Your task to perform on an android device: allow notifications from all sites in the chrome app Image 0: 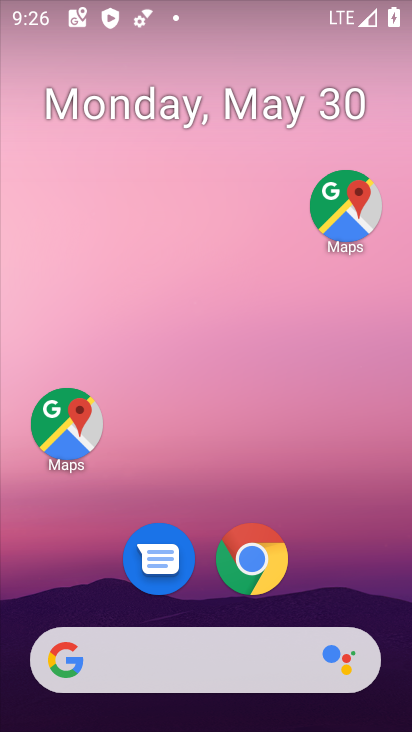
Step 0: press home button
Your task to perform on an android device: allow notifications from all sites in the chrome app Image 1: 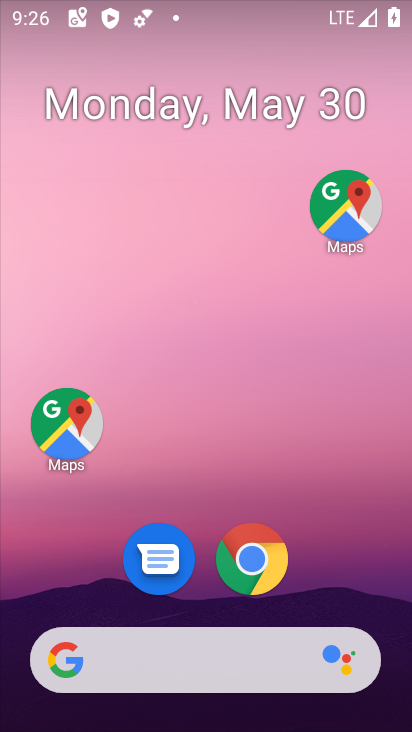
Step 1: click (252, 558)
Your task to perform on an android device: allow notifications from all sites in the chrome app Image 2: 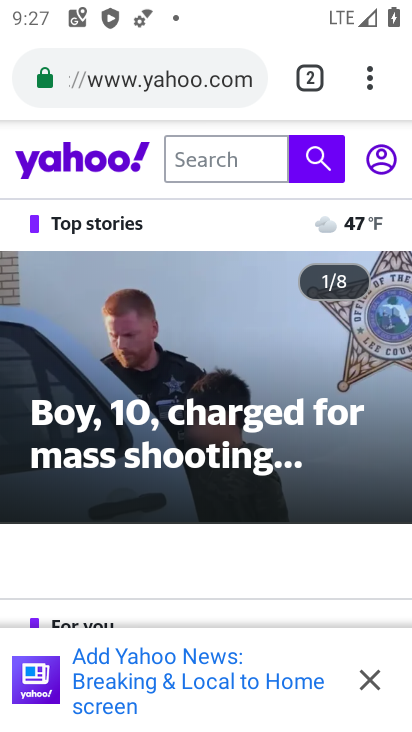
Step 2: drag from (376, 69) to (115, 612)
Your task to perform on an android device: allow notifications from all sites in the chrome app Image 3: 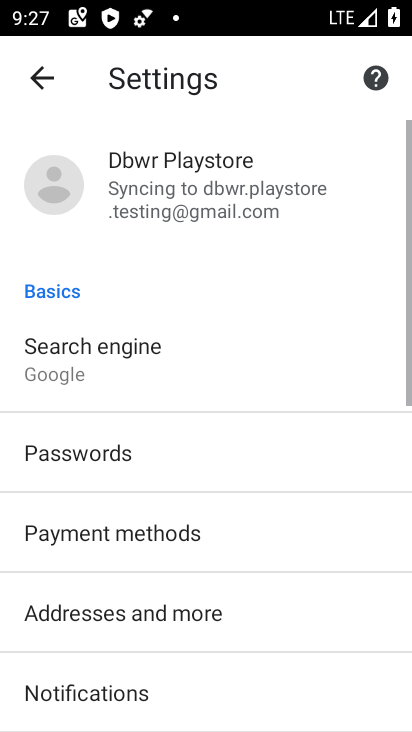
Step 3: drag from (163, 660) to (178, 88)
Your task to perform on an android device: allow notifications from all sites in the chrome app Image 4: 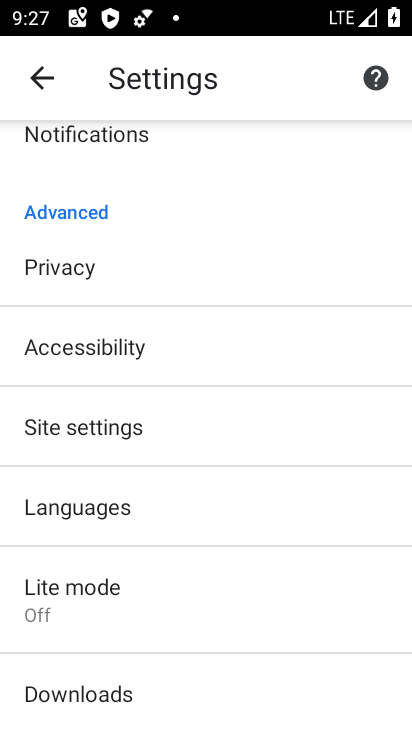
Step 4: click (107, 148)
Your task to perform on an android device: allow notifications from all sites in the chrome app Image 5: 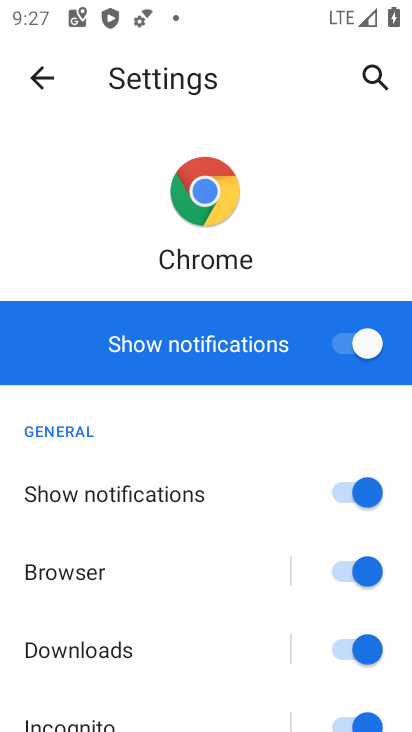
Step 5: task complete